Your task to perform on an android device: change notification settings in the gmail app Image 0: 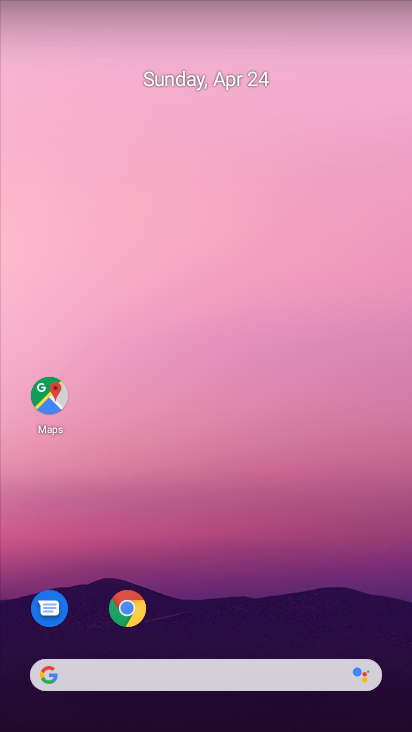
Step 0: drag from (272, 591) to (270, 93)
Your task to perform on an android device: change notification settings in the gmail app Image 1: 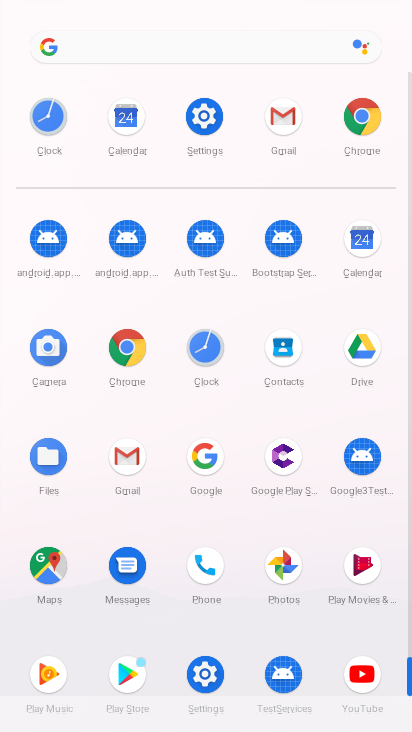
Step 1: click (213, 117)
Your task to perform on an android device: change notification settings in the gmail app Image 2: 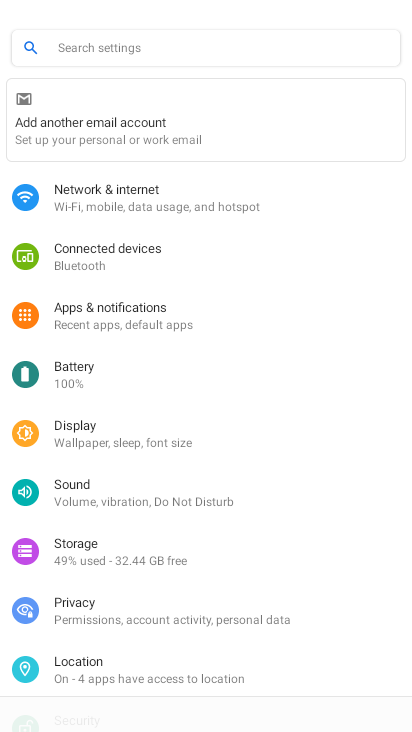
Step 2: click (161, 229)
Your task to perform on an android device: change notification settings in the gmail app Image 3: 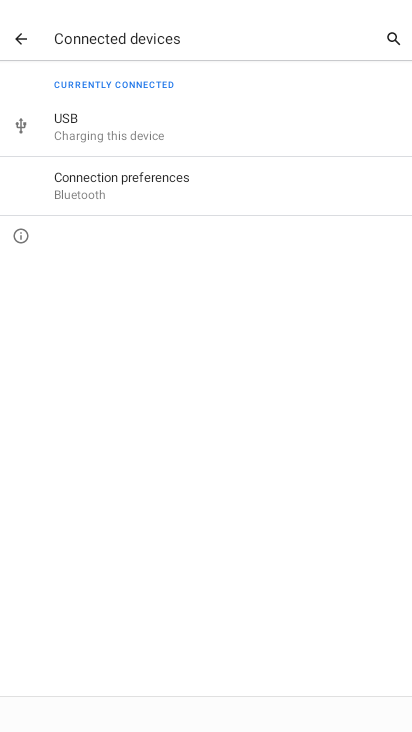
Step 3: click (17, 36)
Your task to perform on an android device: change notification settings in the gmail app Image 4: 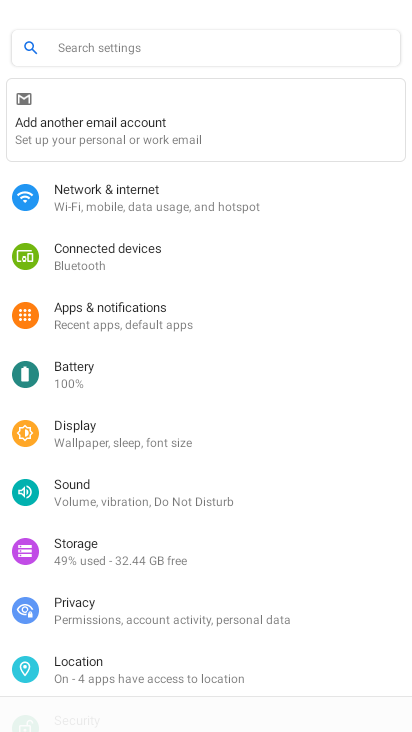
Step 4: click (87, 327)
Your task to perform on an android device: change notification settings in the gmail app Image 5: 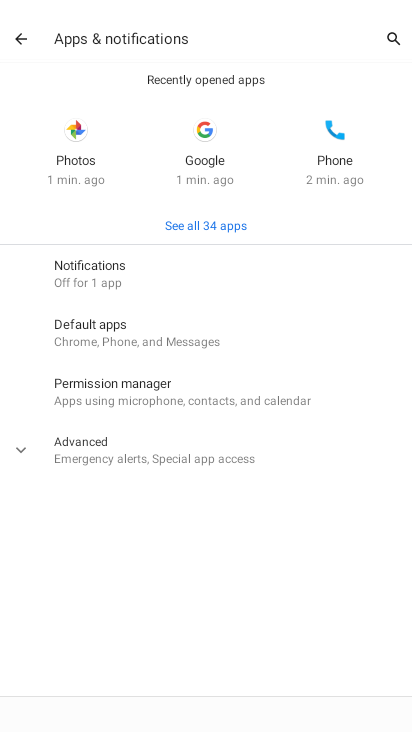
Step 5: click (177, 222)
Your task to perform on an android device: change notification settings in the gmail app Image 6: 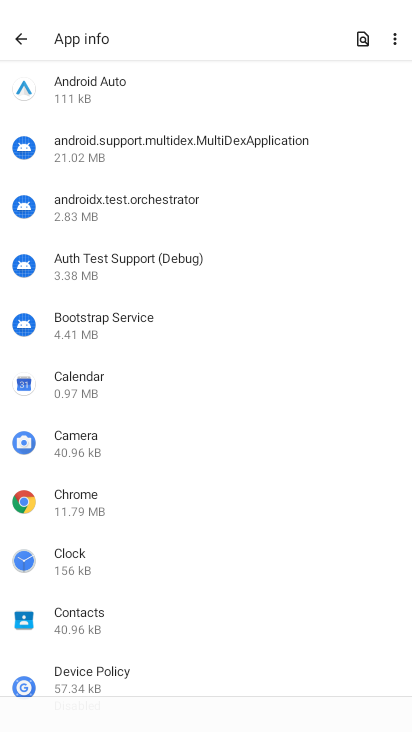
Step 6: drag from (234, 483) to (202, 41)
Your task to perform on an android device: change notification settings in the gmail app Image 7: 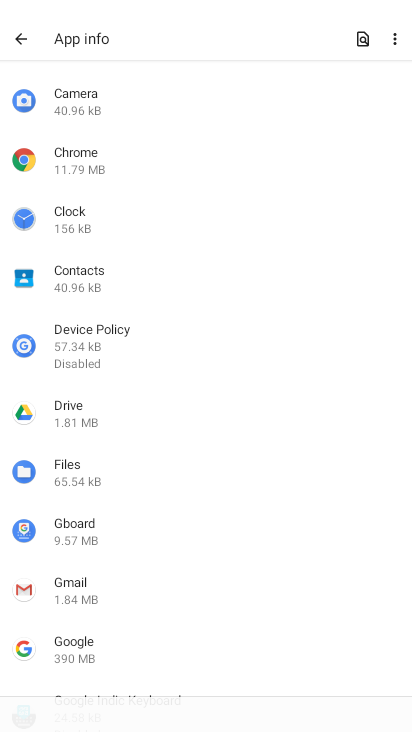
Step 7: click (102, 587)
Your task to perform on an android device: change notification settings in the gmail app Image 8: 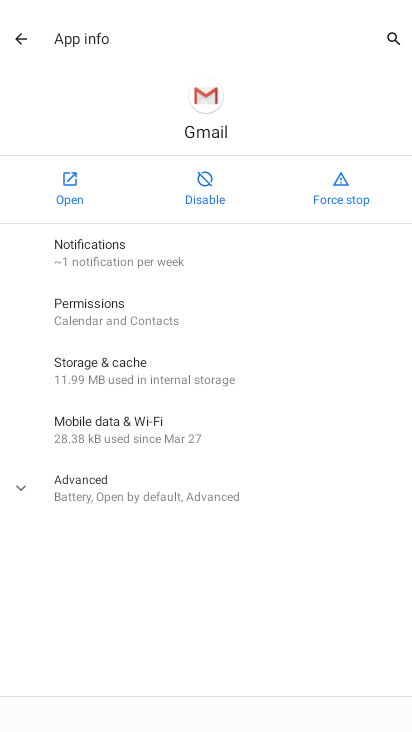
Step 8: click (142, 253)
Your task to perform on an android device: change notification settings in the gmail app Image 9: 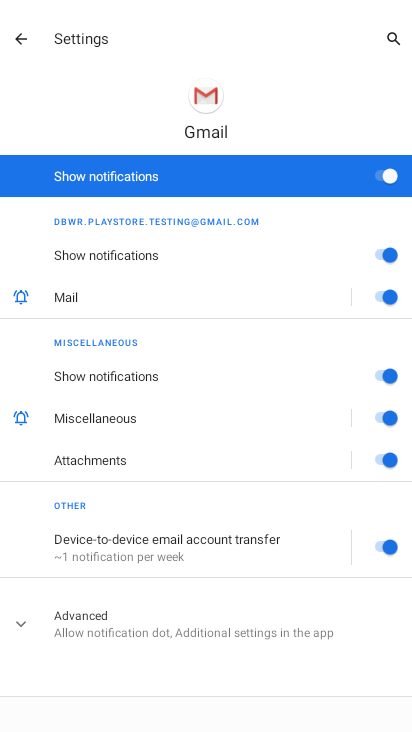
Step 9: click (380, 174)
Your task to perform on an android device: change notification settings in the gmail app Image 10: 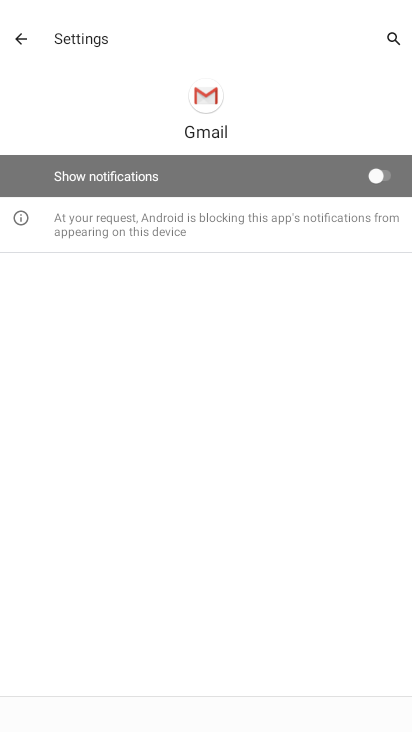
Step 10: task complete